Your task to perform on an android device: manage bookmarks in the chrome app Image 0: 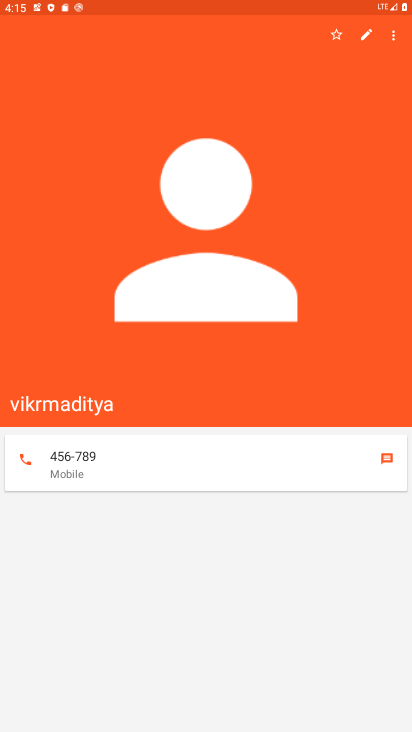
Step 0: press home button
Your task to perform on an android device: manage bookmarks in the chrome app Image 1: 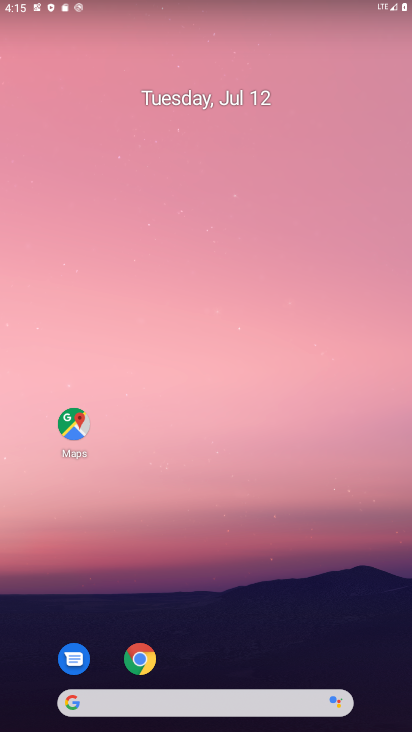
Step 1: click (136, 657)
Your task to perform on an android device: manage bookmarks in the chrome app Image 2: 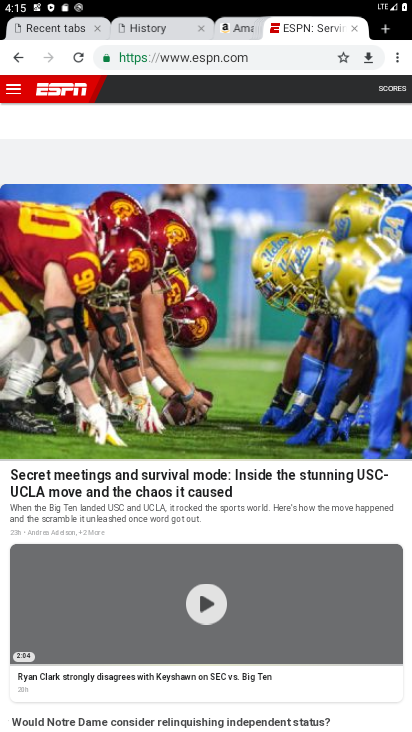
Step 2: click (399, 58)
Your task to perform on an android device: manage bookmarks in the chrome app Image 3: 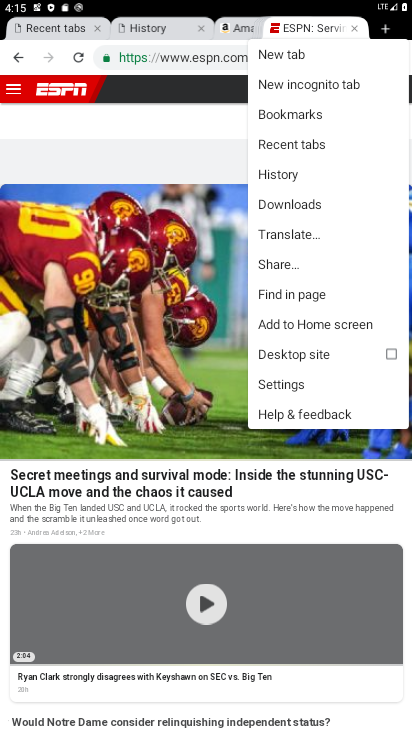
Step 3: click (284, 115)
Your task to perform on an android device: manage bookmarks in the chrome app Image 4: 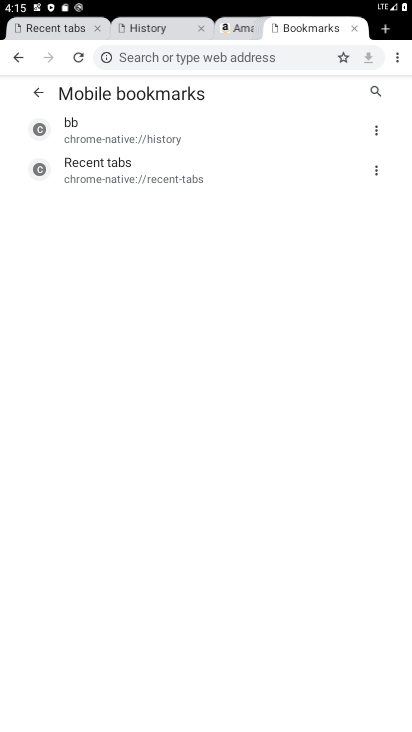
Step 4: click (378, 171)
Your task to perform on an android device: manage bookmarks in the chrome app Image 5: 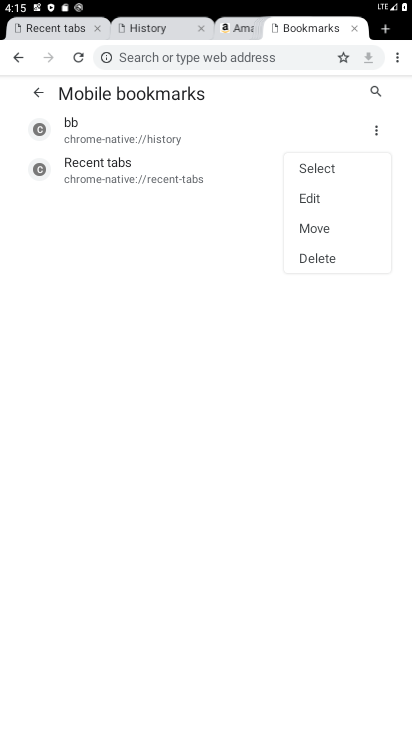
Step 5: click (322, 197)
Your task to perform on an android device: manage bookmarks in the chrome app Image 6: 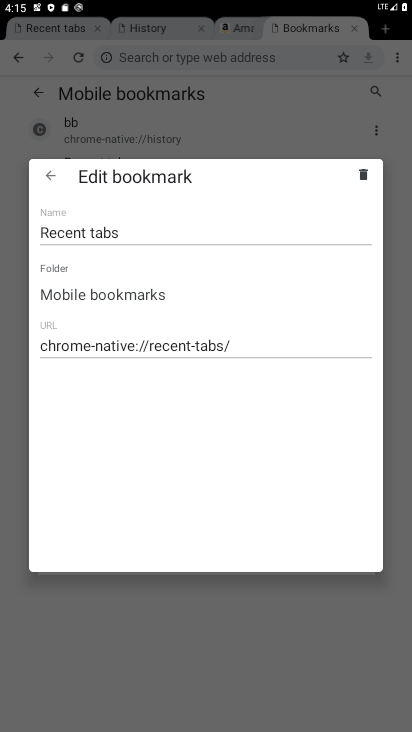
Step 6: click (69, 241)
Your task to perform on an android device: manage bookmarks in the chrome app Image 7: 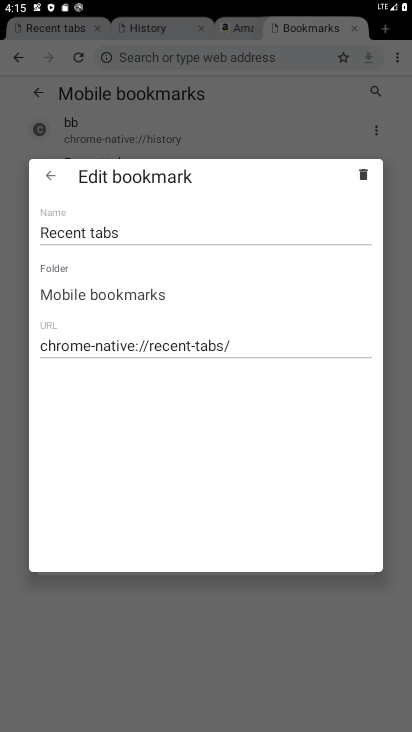
Step 7: click (69, 241)
Your task to perform on an android device: manage bookmarks in the chrome app Image 8: 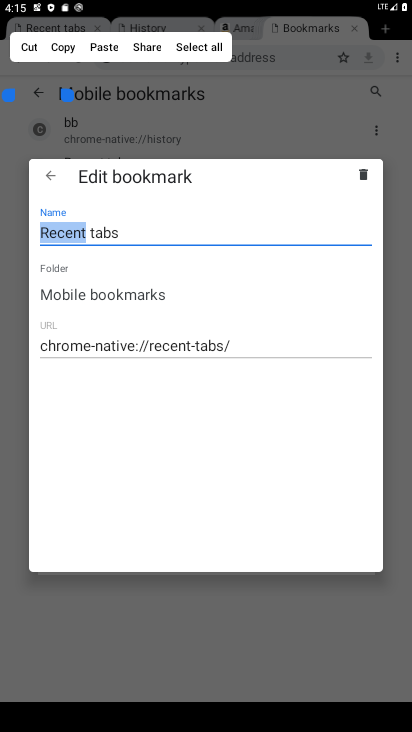
Step 8: click (26, 42)
Your task to perform on an android device: manage bookmarks in the chrome app Image 9: 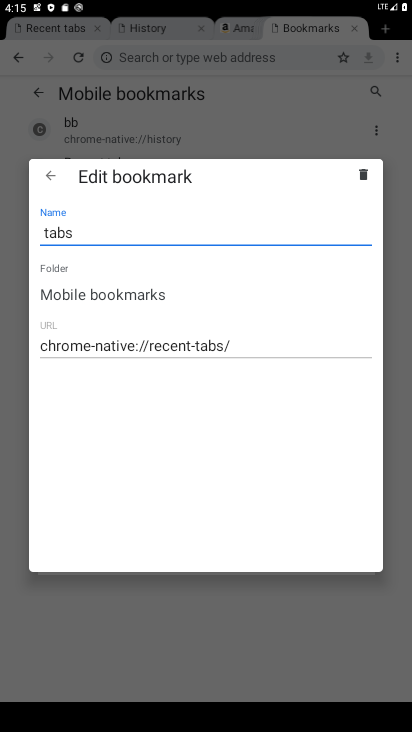
Step 9: click (47, 175)
Your task to perform on an android device: manage bookmarks in the chrome app Image 10: 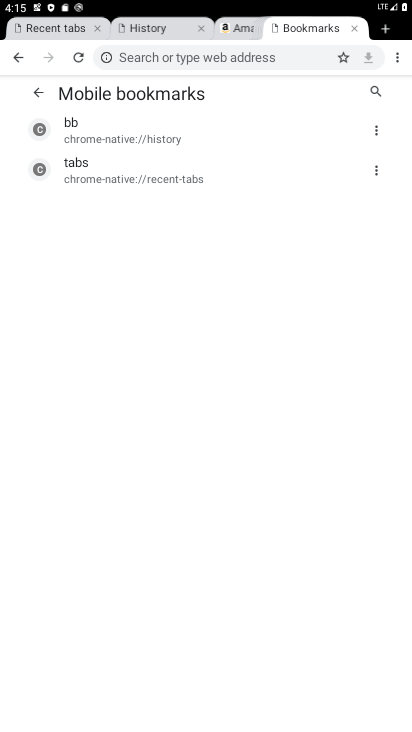
Step 10: task complete